Your task to perform on an android device: Open the calendar app, open the side menu, and click the "Day" option Image 0: 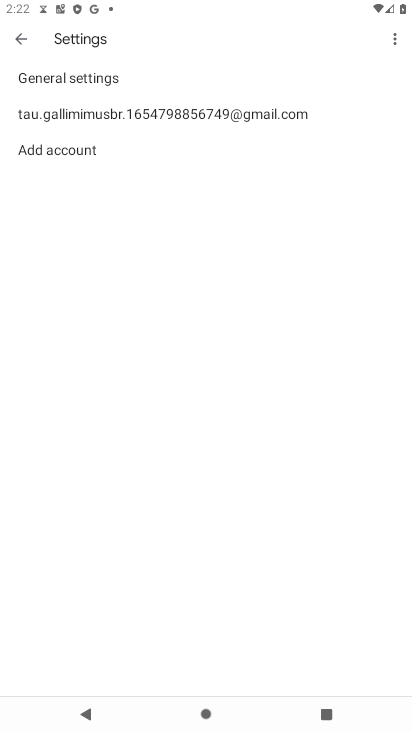
Step 0: press home button
Your task to perform on an android device: Open the calendar app, open the side menu, and click the "Day" option Image 1: 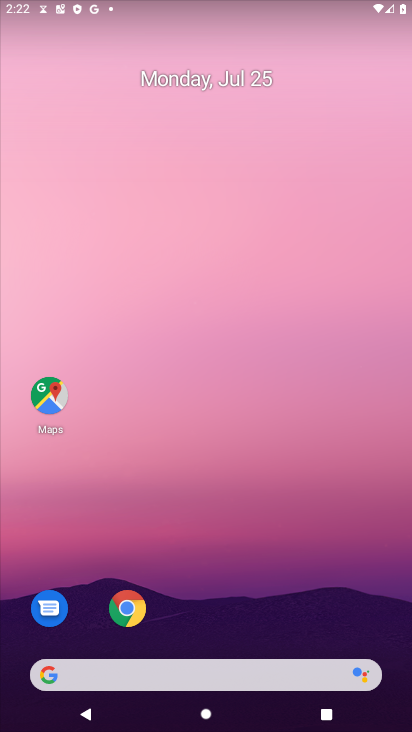
Step 1: drag from (197, 679) to (323, 149)
Your task to perform on an android device: Open the calendar app, open the side menu, and click the "Day" option Image 2: 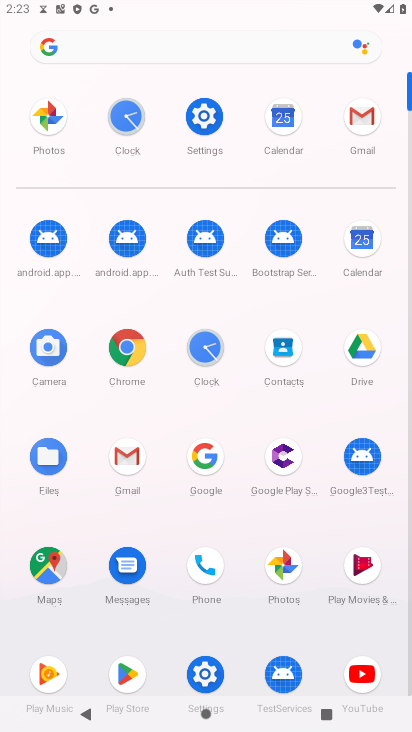
Step 2: click (360, 236)
Your task to perform on an android device: Open the calendar app, open the side menu, and click the "Day" option Image 3: 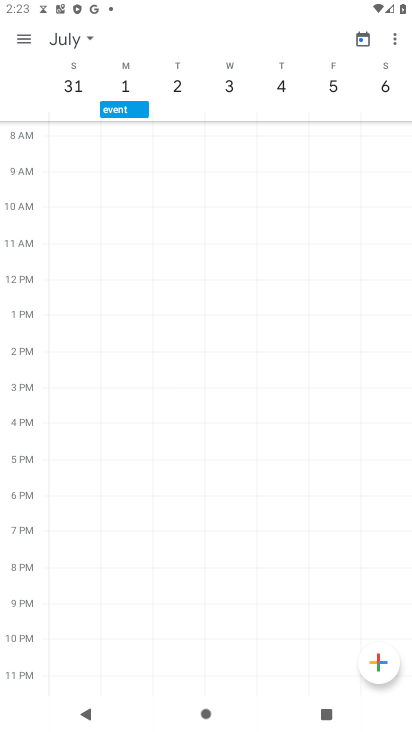
Step 3: click (25, 40)
Your task to perform on an android device: Open the calendar app, open the side menu, and click the "Day" option Image 4: 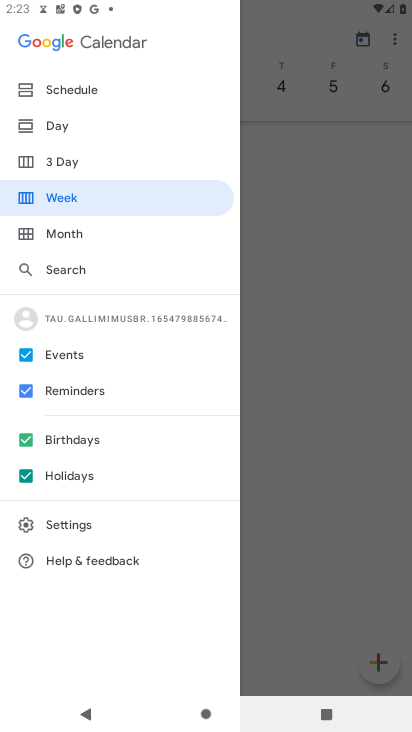
Step 4: click (45, 124)
Your task to perform on an android device: Open the calendar app, open the side menu, and click the "Day" option Image 5: 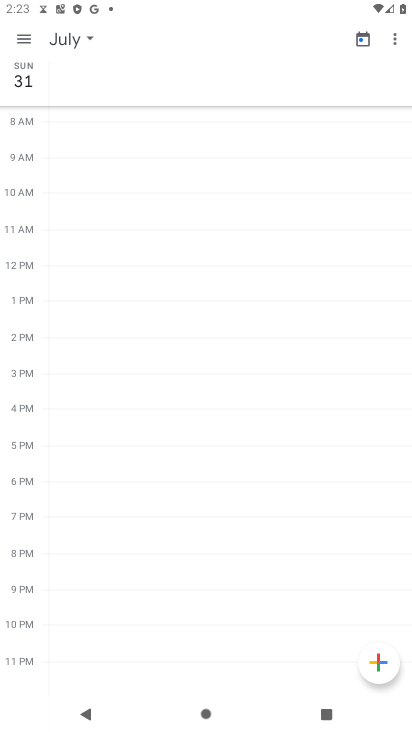
Step 5: task complete